Your task to perform on an android device: Open the downloads Image 0: 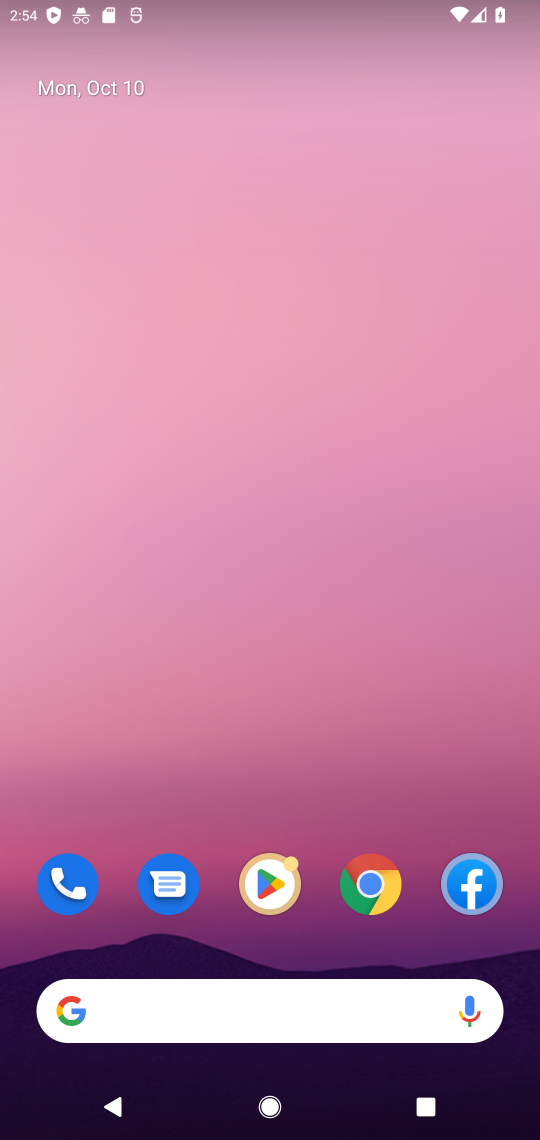
Step 0: drag from (304, 947) to (303, 259)
Your task to perform on an android device: Open the downloads Image 1: 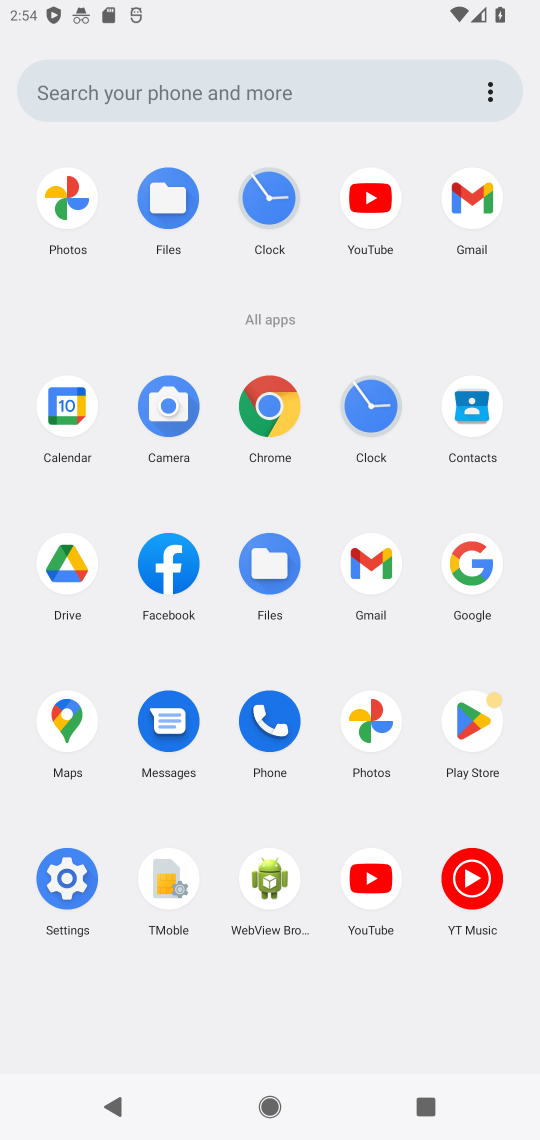
Step 1: click (169, 202)
Your task to perform on an android device: Open the downloads Image 2: 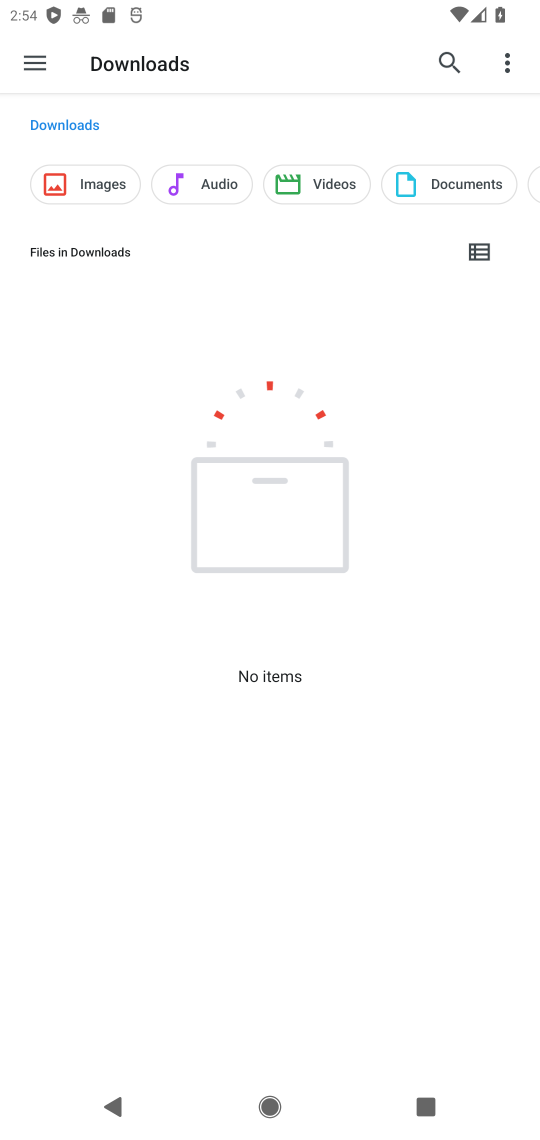
Step 2: task complete